Your task to perform on an android device: Go to sound settings Image 0: 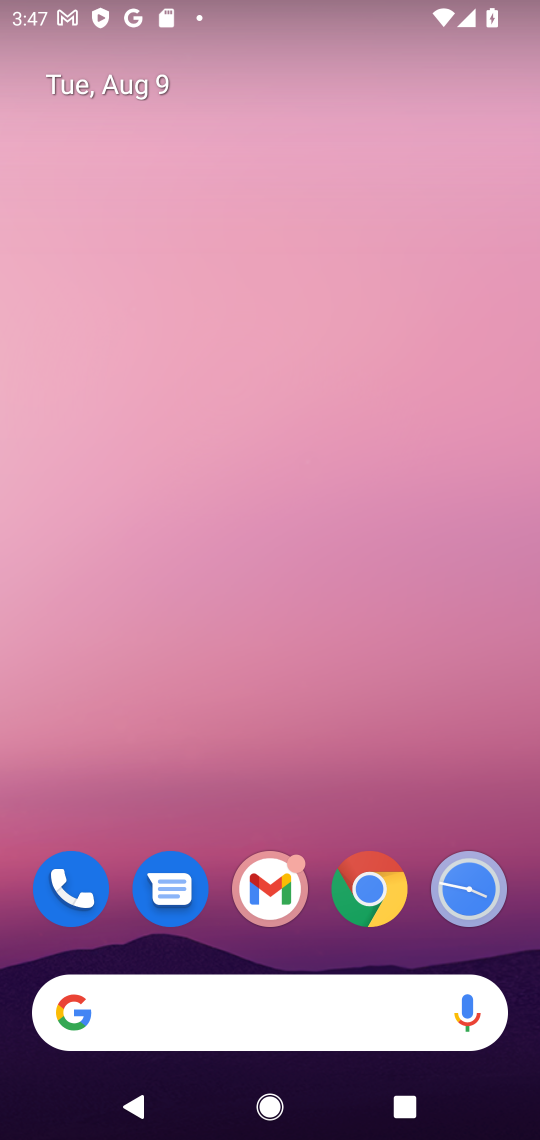
Step 0: drag from (261, 764) to (332, 1)
Your task to perform on an android device: Go to sound settings Image 1: 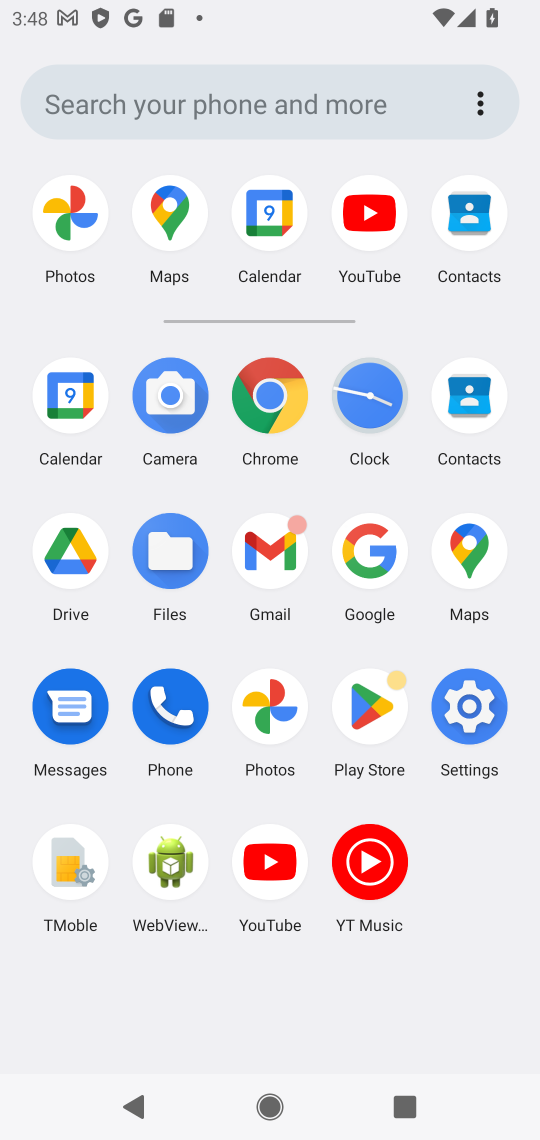
Step 1: click (470, 704)
Your task to perform on an android device: Go to sound settings Image 2: 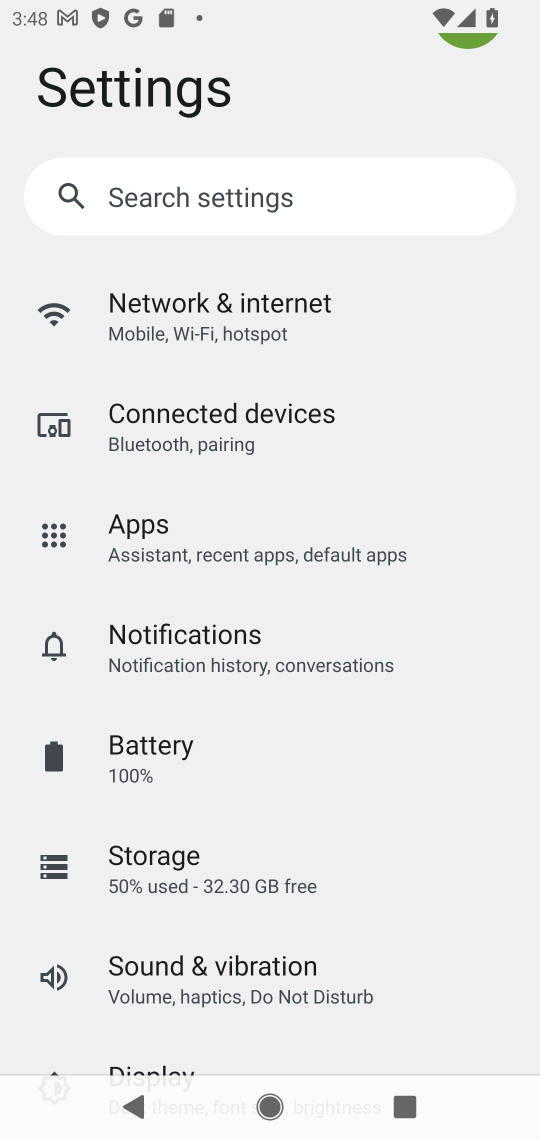
Step 2: click (285, 962)
Your task to perform on an android device: Go to sound settings Image 3: 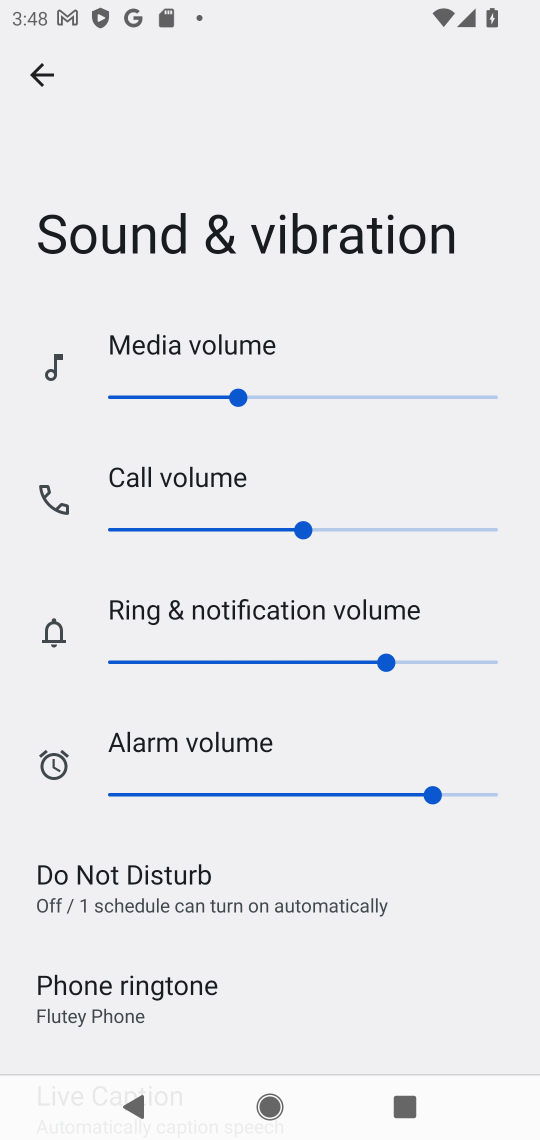
Step 3: task complete